Your task to perform on an android device: install app "Truecaller" Image 0: 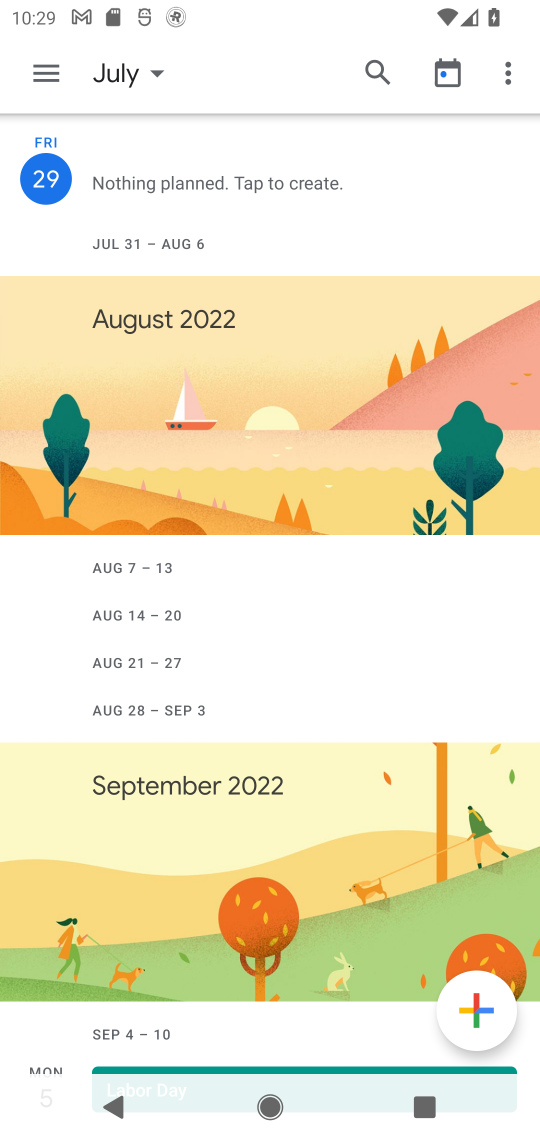
Step 0: press home button
Your task to perform on an android device: install app "Truecaller" Image 1: 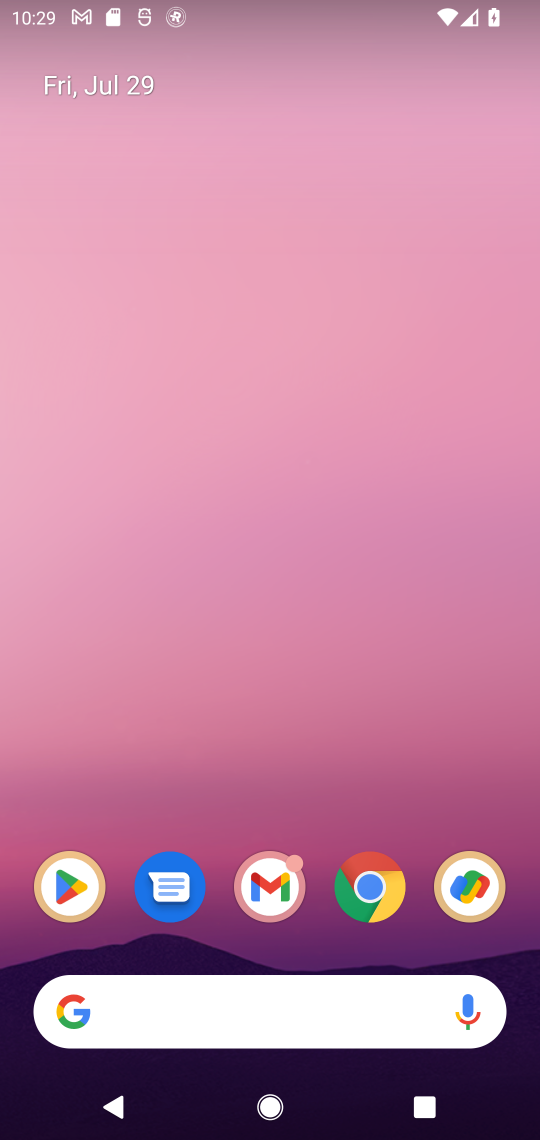
Step 1: click (75, 887)
Your task to perform on an android device: install app "Truecaller" Image 2: 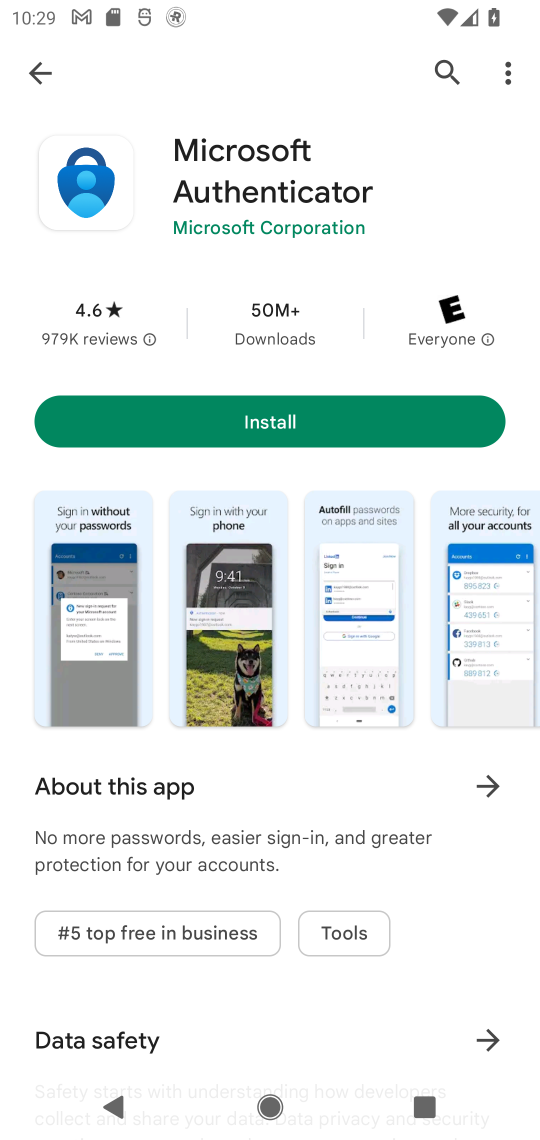
Step 2: click (457, 82)
Your task to perform on an android device: install app "Truecaller" Image 3: 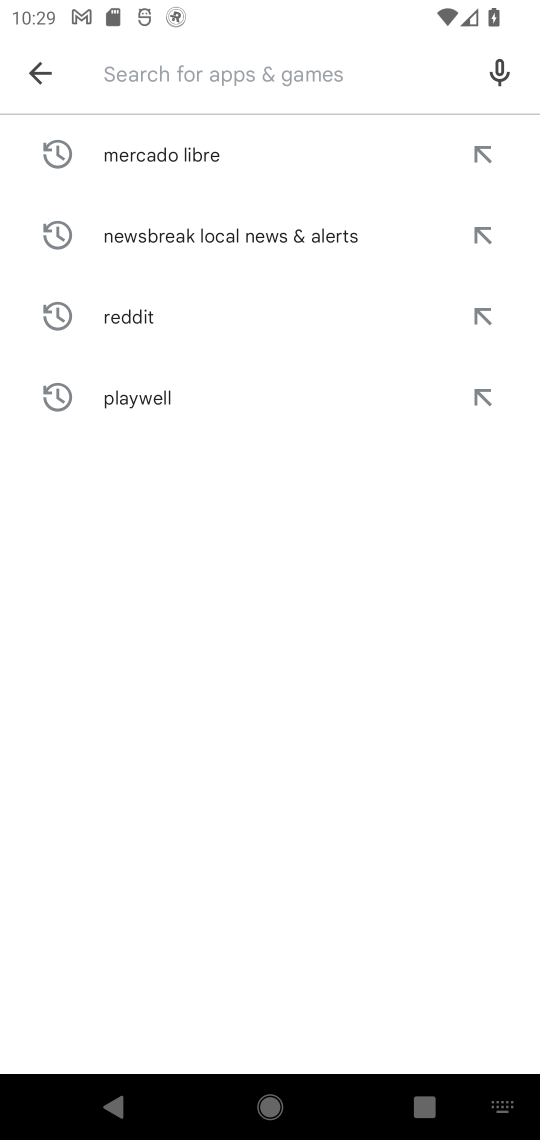
Step 3: type "truecaller"
Your task to perform on an android device: install app "Truecaller" Image 4: 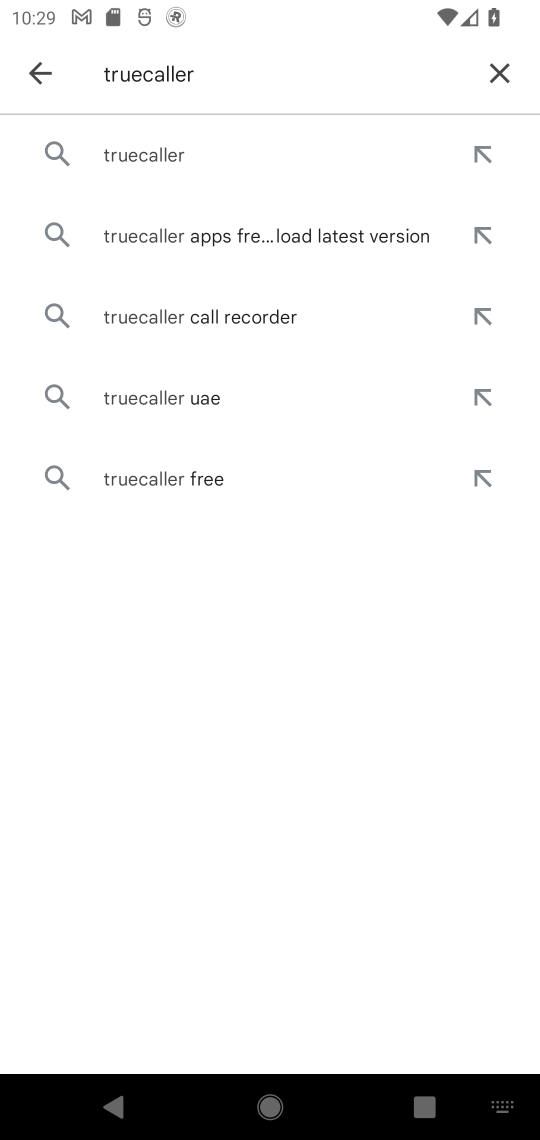
Step 4: click (181, 155)
Your task to perform on an android device: install app "Truecaller" Image 5: 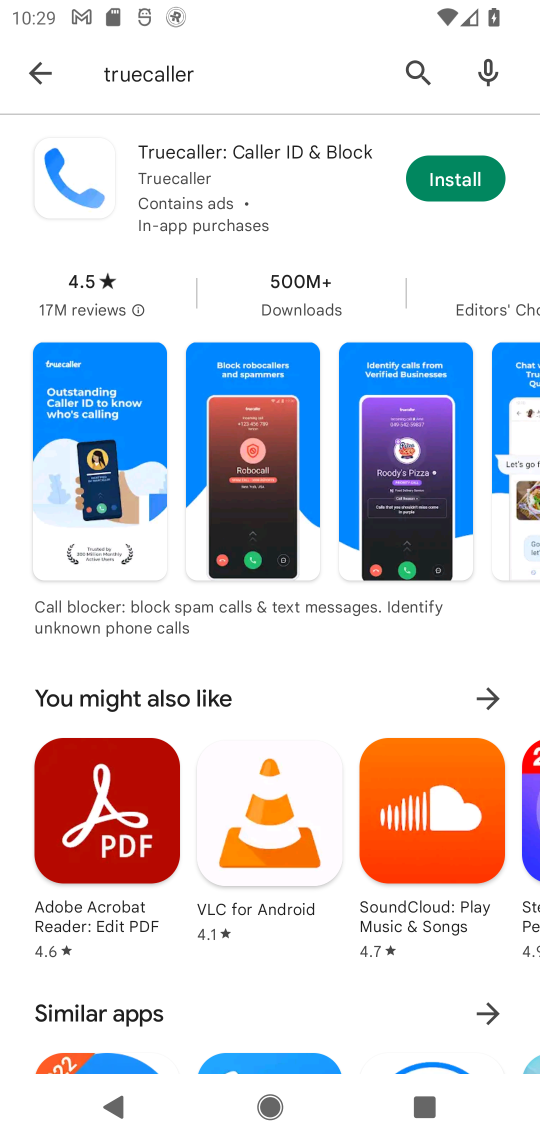
Step 5: click (198, 150)
Your task to perform on an android device: install app "Truecaller" Image 6: 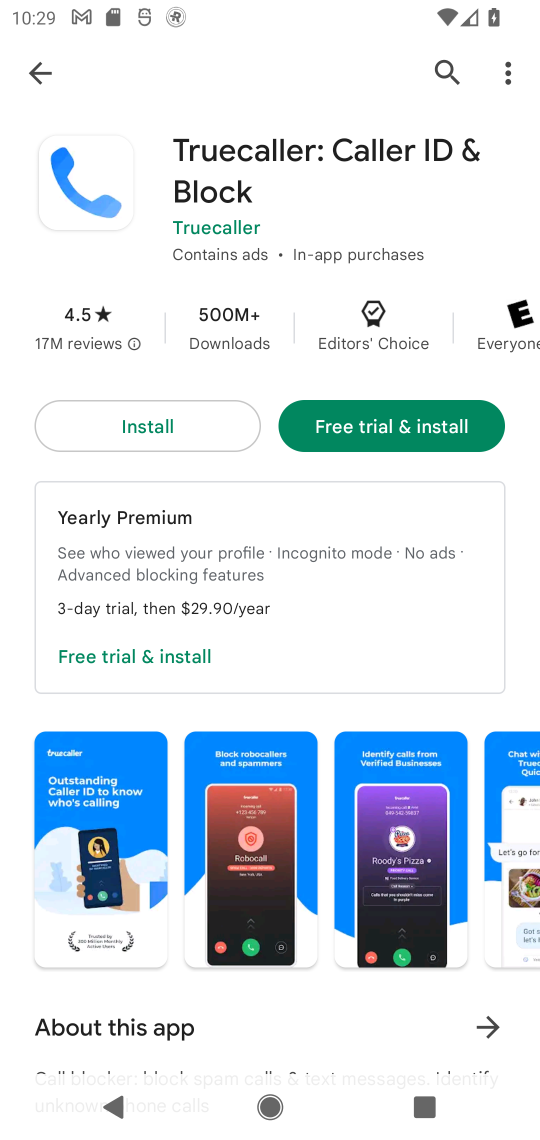
Step 6: click (170, 418)
Your task to perform on an android device: install app "Truecaller" Image 7: 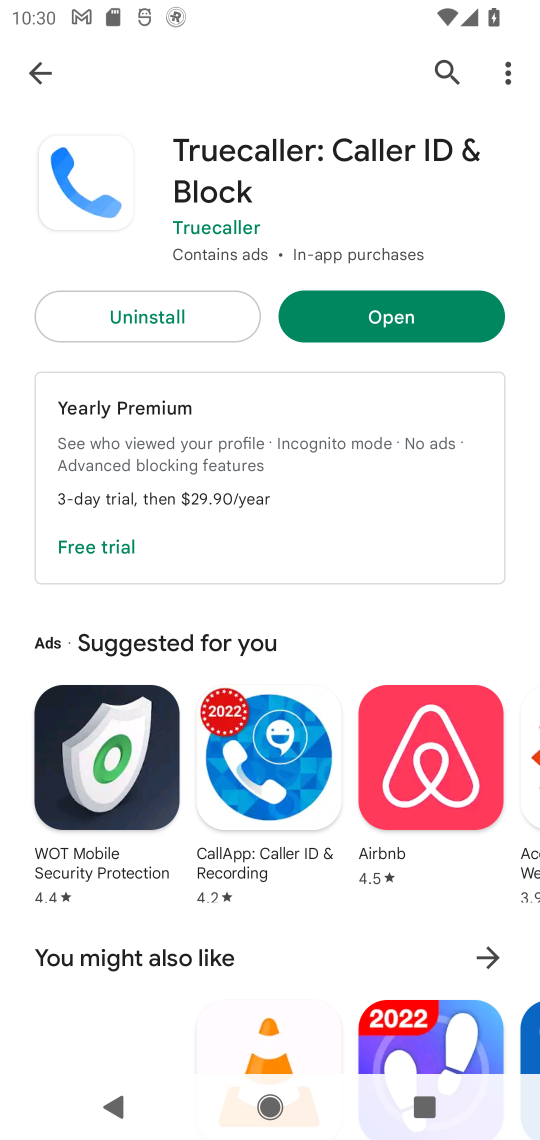
Step 7: task complete